Your task to perform on an android device: Search for vegetarian restaurants on Maps Image 0: 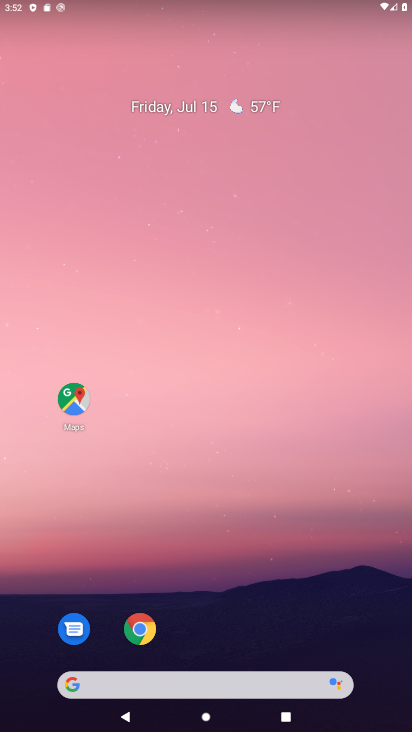
Step 0: press home button
Your task to perform on an android device: Search for vegetarian restaurants on Maps Image 1: 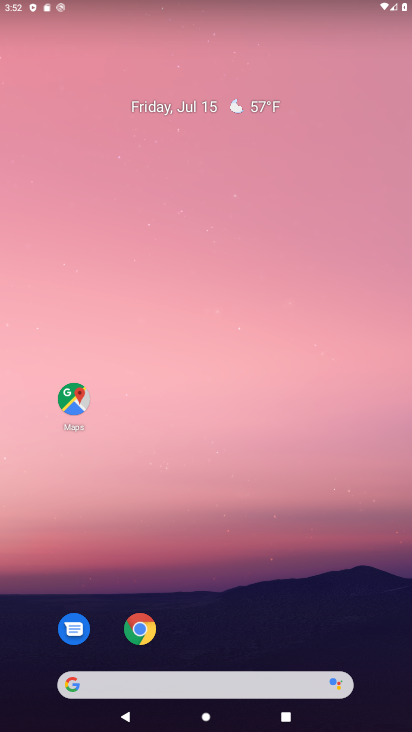
Step 1: press home button
Your task to perform on an android device: Search for vegetarian restaurants on Maps Image 2: 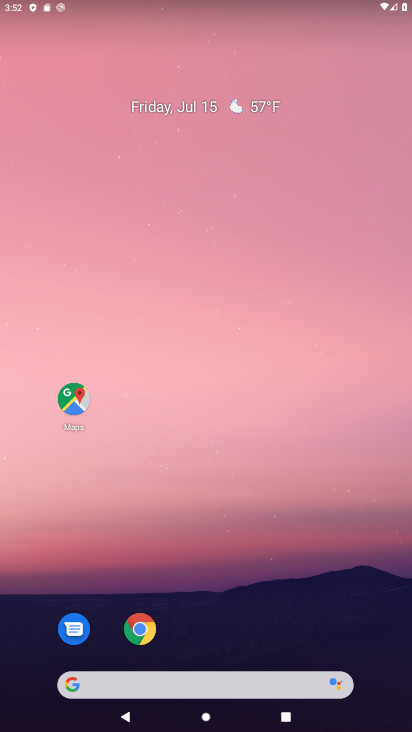
Step 2: click (67, 398)
Your task to perform on an android device: Search for vegetarian restaurants on Maps Image 3: 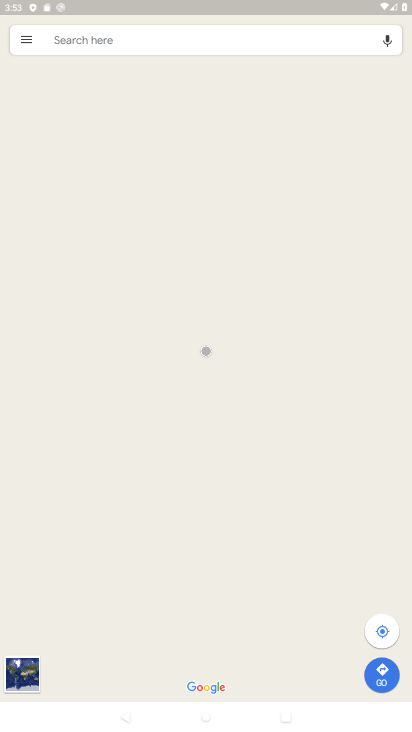
Step 3: type "vegetarian restaurants"
Your task to perform on an android device: Search for vegetarian restaurants on Maps Image 4: 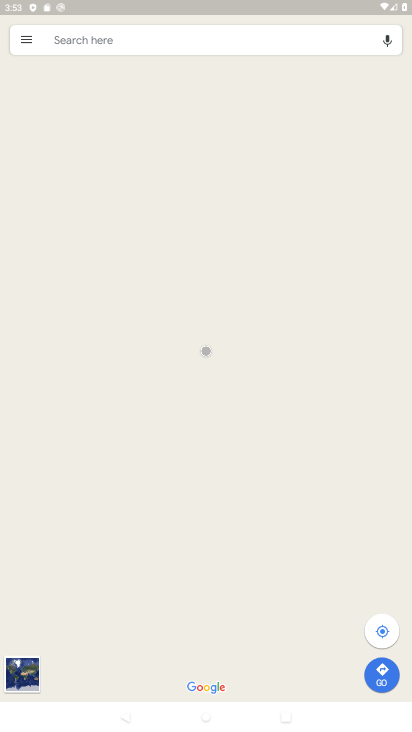
Step 4: click (119, 33)
Your task to perform on an android device: Search for vegetarian restaurants on Maps Image 5: 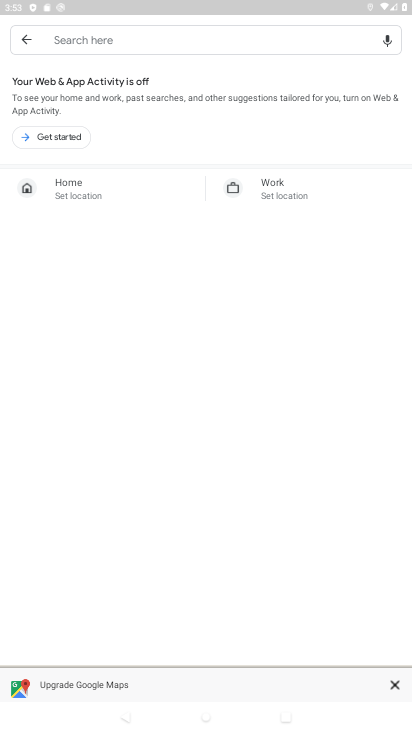
Step 5: click (102, 40)
Your task to perform on an android device: Search for vegetarian restaurants on Maps Image 6: 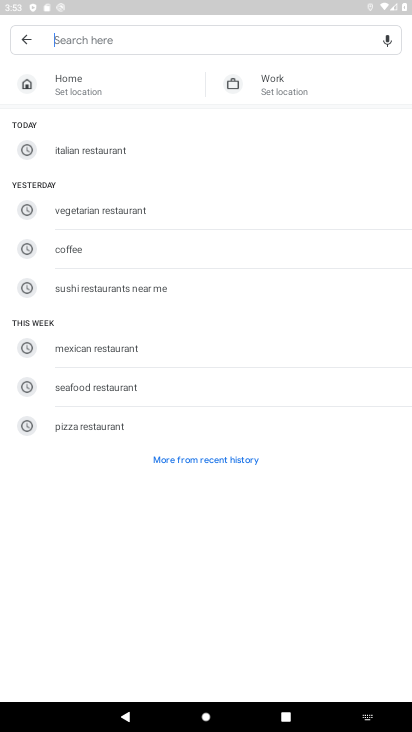
Step 6: click (76, 207)
Your task to perform on an android device: Search for vegetarian restaurants on Maps Image 7: 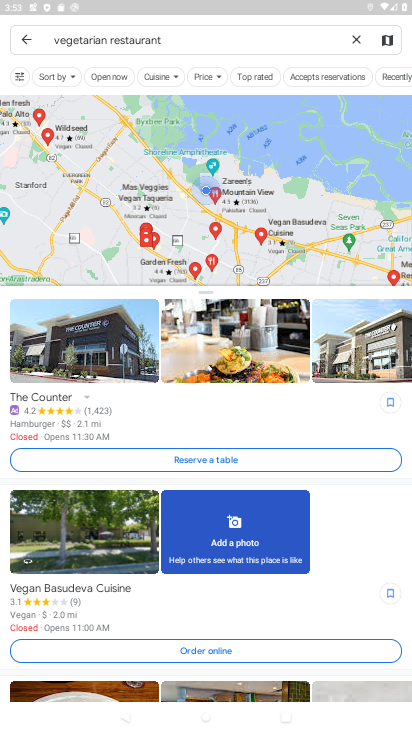
Step 7: task complete